Your task to perform on an android device: change your default location settings in chrome Image 0: 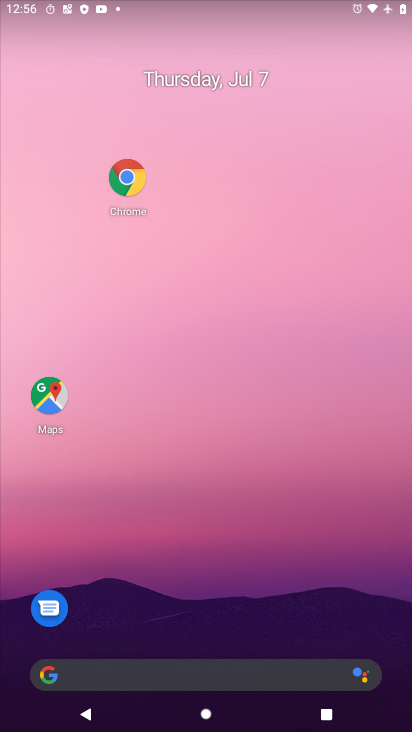
Step 0: drag from (197, 649) to (257, 134)
Your task to perform on an android device: change your default location settings in chrome Image 1: 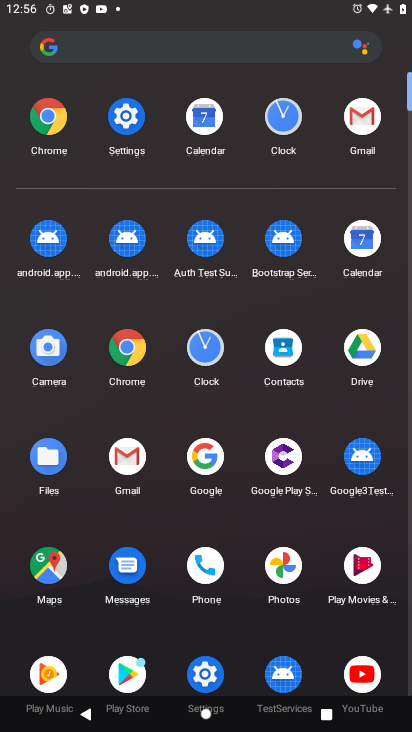
Step 1: click (130, 360)
Your task to perform on an android device: change your default location settings in chrome Image 2: 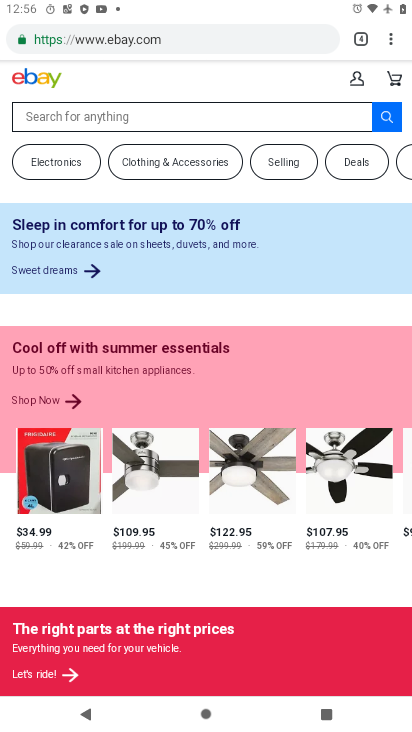
Step 2: click (395, 34)
Your task to perform on an android device: change your default location settings in chrome Image 3: 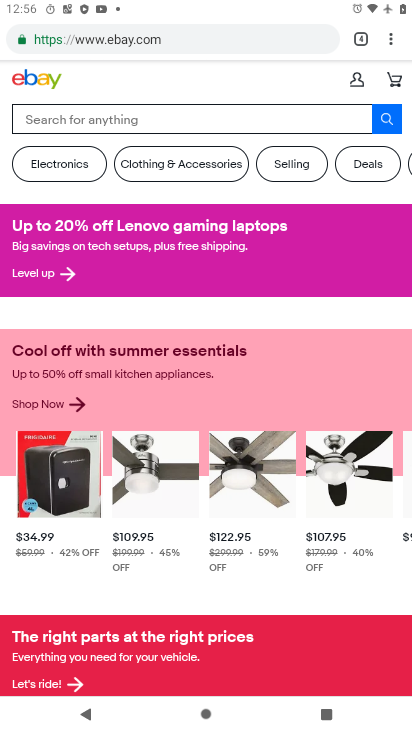
Step 3: click (389, 31)
Your task to perform on an android device: change your default location settings in chrome Image 4: 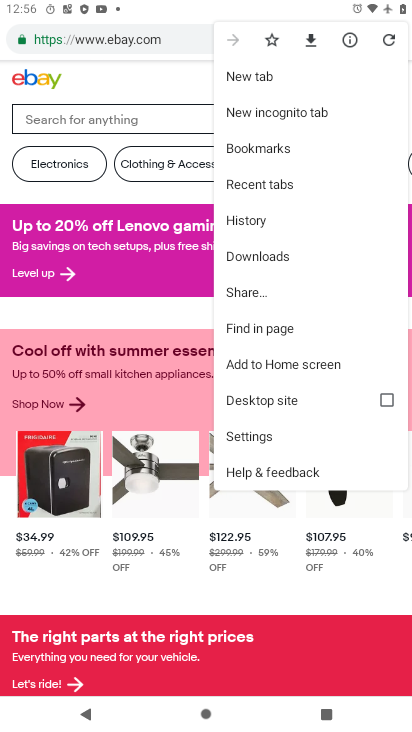
Step 4: click (263, 440)
Your task to perform on an android device: change your default location settings in chrome Image 5: 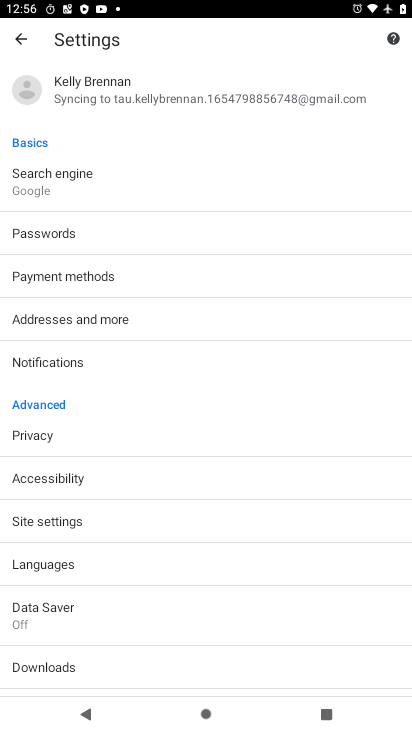
Step 5: click (42, 526)
Your task to perform on an android device: change your default location settings in chrome Image 6: 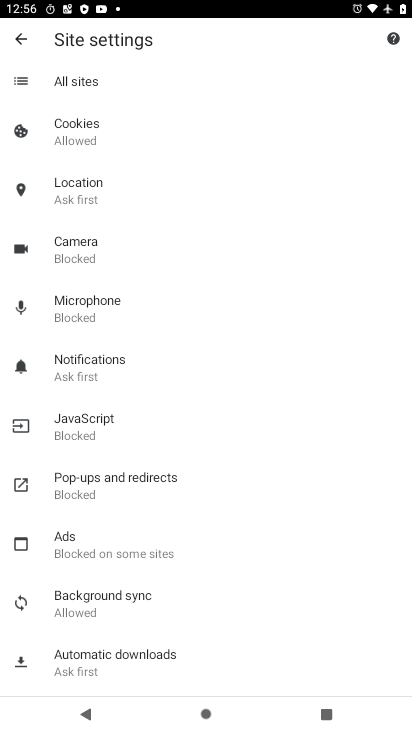
Step 6: click (104, 200)
Your task to perform on an android device: change your default location settings in chrome Image 7: 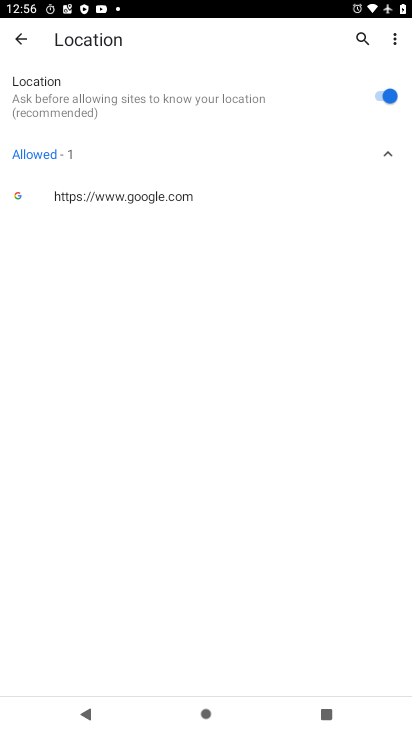
Step 7: click (375, 89)
Your task to perform on an android device: change your default location settings in chrome Image 8: 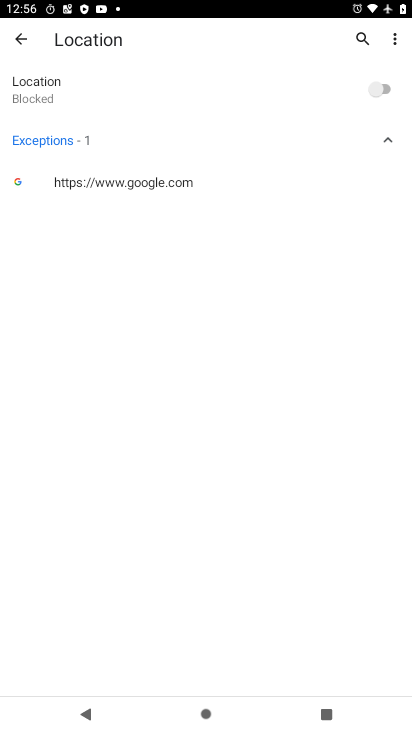
Step 8: task complete